Your task to perform on an android device: see tabs open on other devices in the chrome app Image 0: 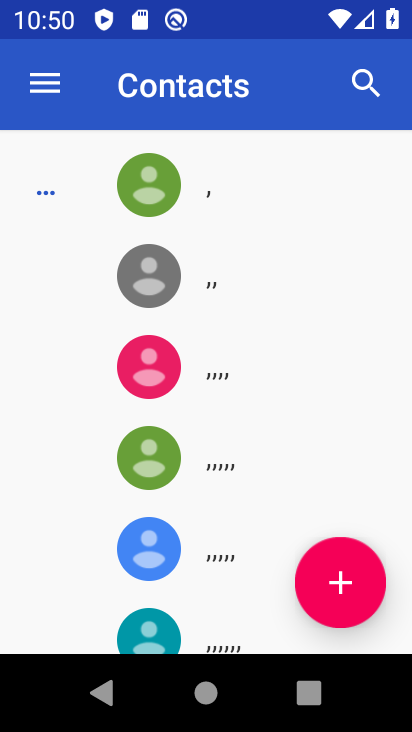
Step 0: press home button
Your task to perform on an android device: see tabs open on other devices in the chrome app Image 1: 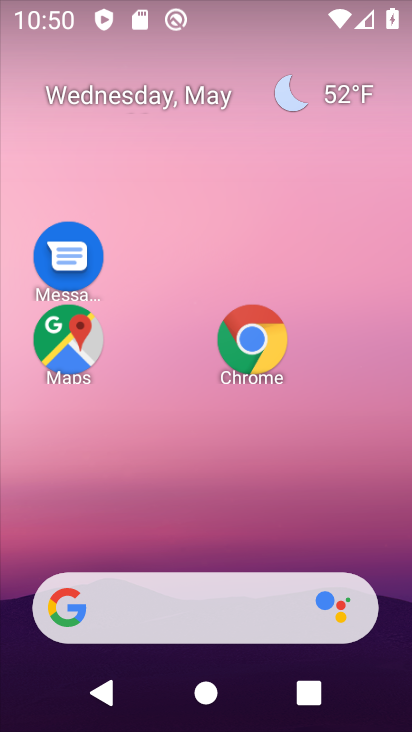
Step 1: click (256, 331)
Your task to perform on an android device: see tabs open on other devices in the chrome app Image 2: 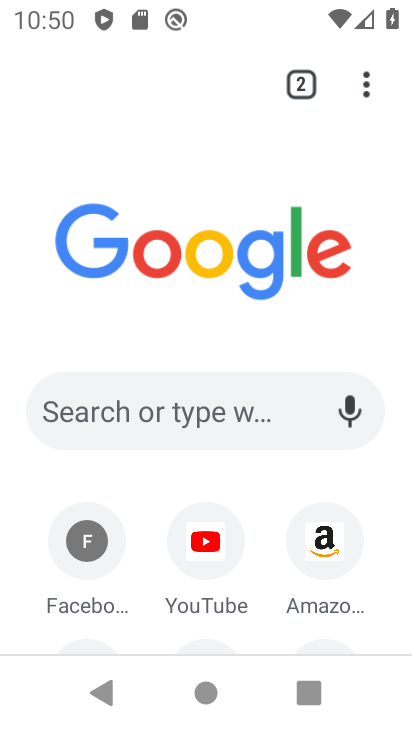
Step 2: click (303, 93)
Your task to perform on an android device: see tabs open on other devices in the chrome app Image 3: 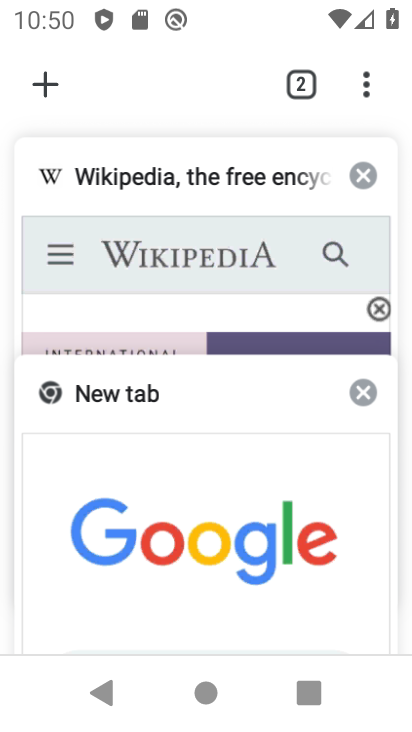
Step 3: task complete